Your task to perform on an android device: open the mobile data screen to see how much data has been used Image 0: 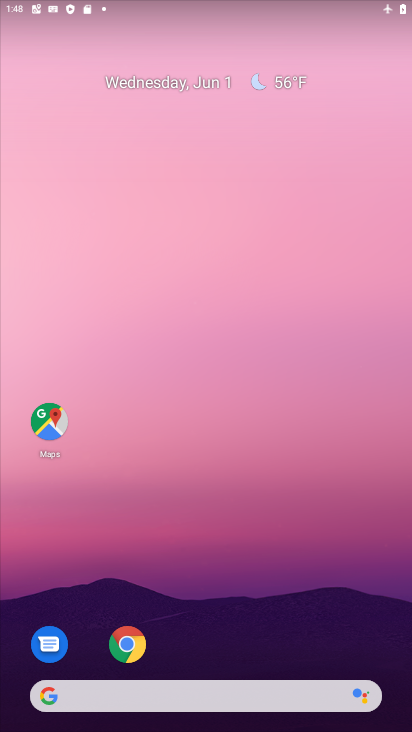
Step 0: drag from (346, 555) to (194, 63)
Your task to perform on an android device: open the mobile data screen to see how much data has been used Image 1: 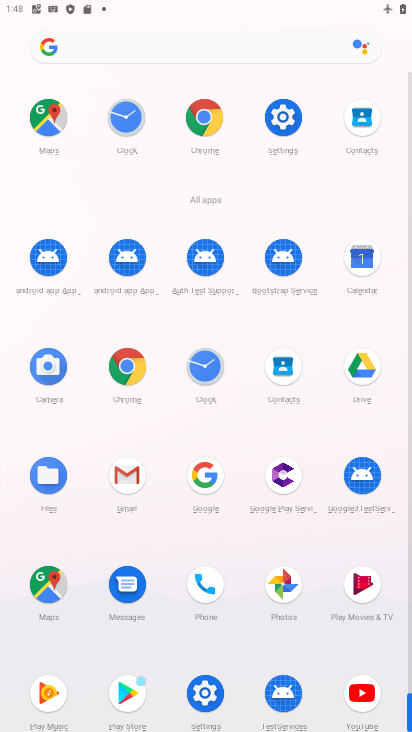
Step 1: drag from (12, 551) to (32, 176)
Your task to perform on an android device: open the mobile data screen to see how much data has been used Image 2: 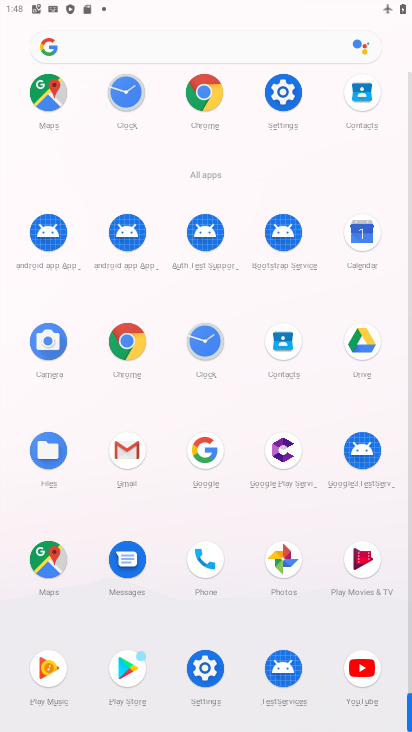
Step 2: click (286, 89)
Your task to perform on an android device: open the mobile data screen to see how much data has been used Image 3: 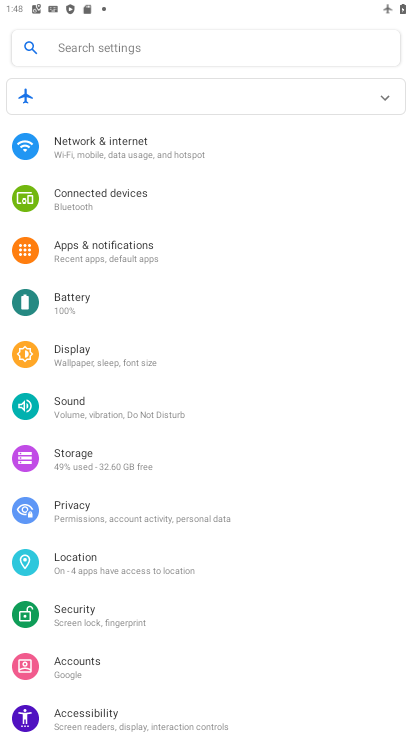
Step 3: click (192, 154)
Your task to perform on an android device: open the mobile data screen to see how much data has been used Image 4: 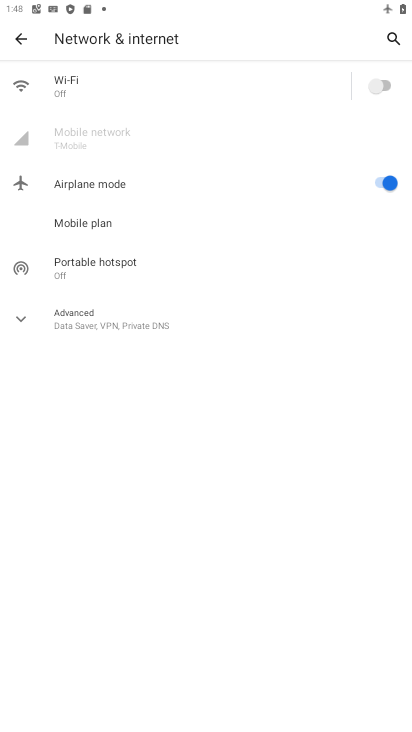
Step 4: click (31, 324)
Your task to perform on an android device: open the mobile data screen to see how much data has been used Image 5: 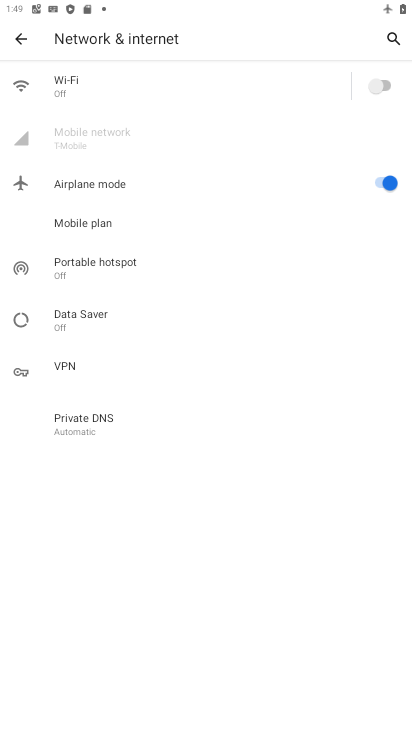
Step 5: task complete